Your task to perform on an android device: toggle priority inbox in the gmail app Image 0: 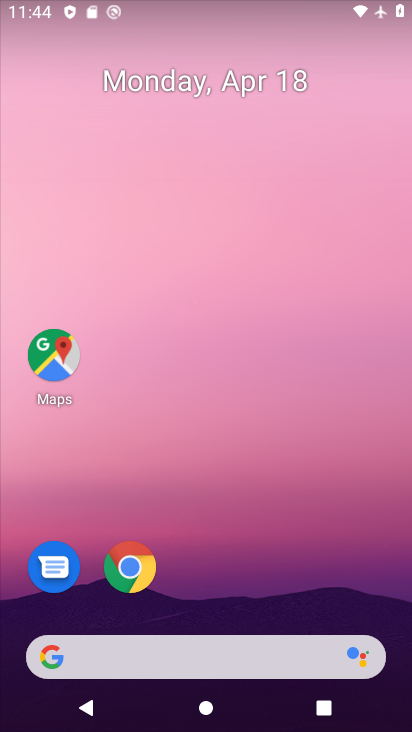
Step 0: click (345, 119)
Your task to perform on an android device: toggle priority inbox in the gmail app Image 1: 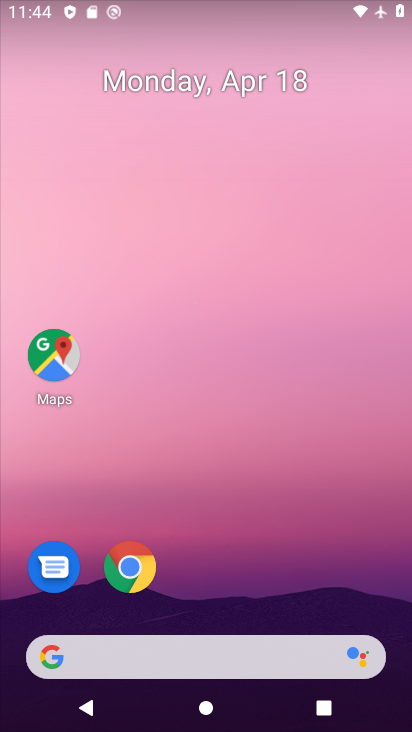
Step 1: drag from (392, 639) to (344, 194)
Your task to perform on an android device: toggle priority inbox in the gmail app Image 2: 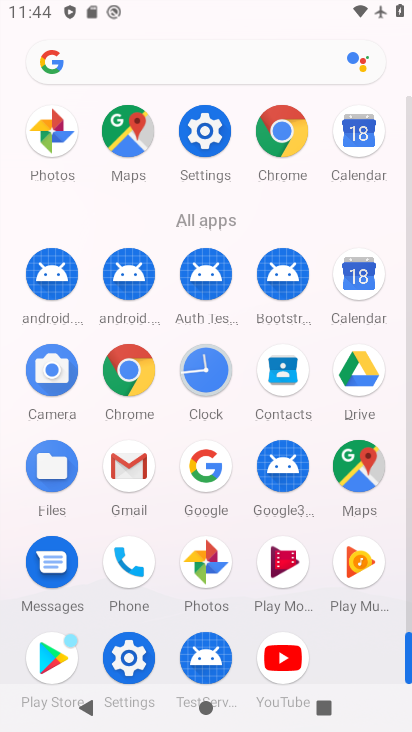
Step 2: click (122, 464)
Your task to perform on an android device: toggle priority inbox in the gmail app Image 3: 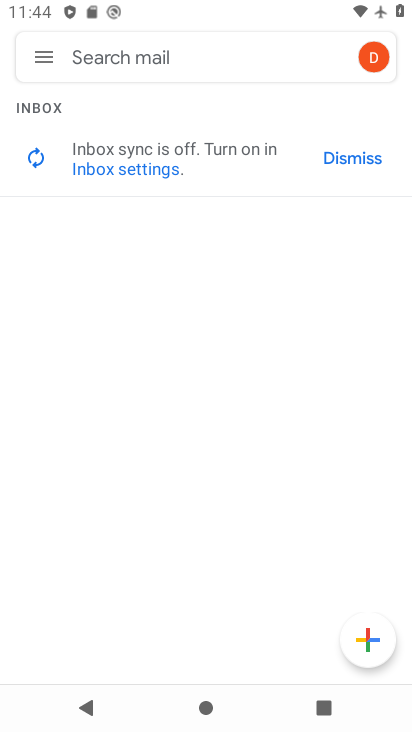
Step 3: click (43, 56)
Your task to perform on an android device: toggle priority inbox in the gmail app Image 4: 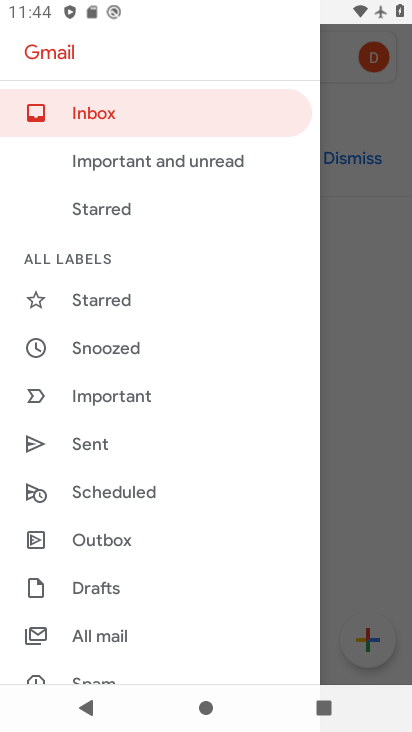
Step 4: drag from (163, 612) to (176, 383)
Your task to perform on an android device: toggle priority inbox in the gmail app Image 5: 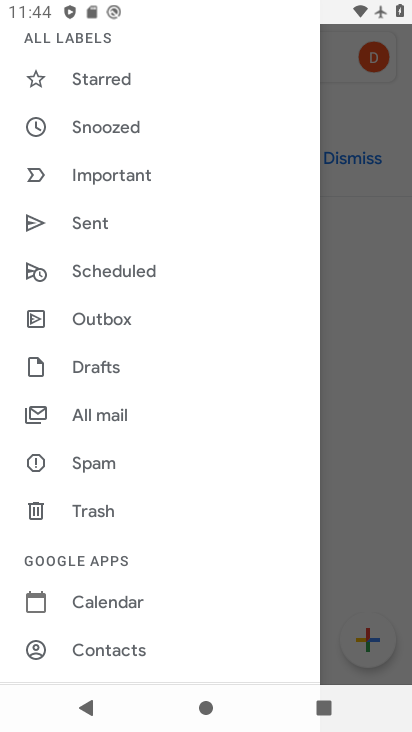
Step 5: drag from (162, 623) to (165, 303)
Your task to perform on an android device: toggle priority inbox in the gmail app Image 6: 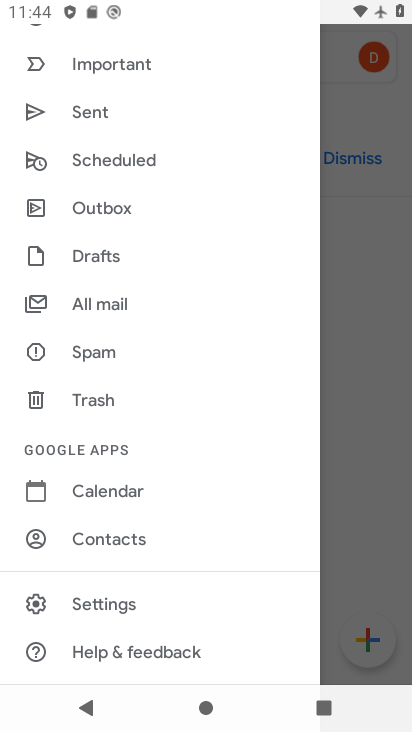
Step 6: click (106, 602)
Your task to perform on an android device: toggle priority inbox in the gmail app Image 7: 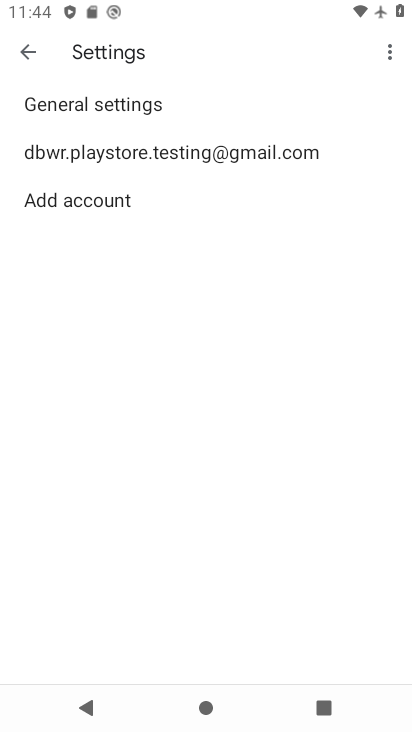
Step 7: click (80, 148)
Your task to perform on an android device: toggle priority inbox in the gmail app Image 8: 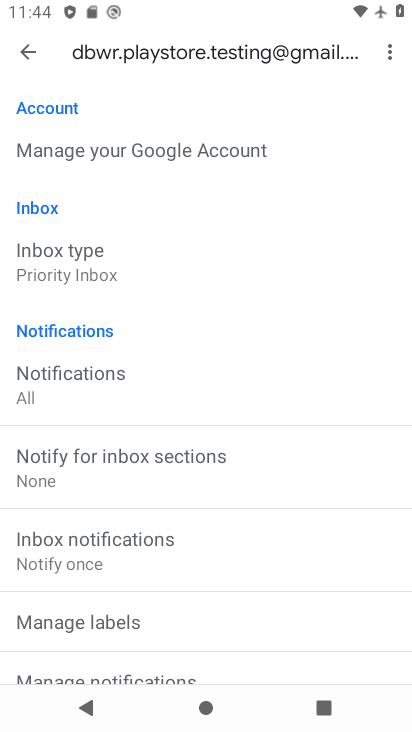
Step 8: click (79, 269)
Your task to perform on an android device: toggle priority inbox in the gmail app Image 9: 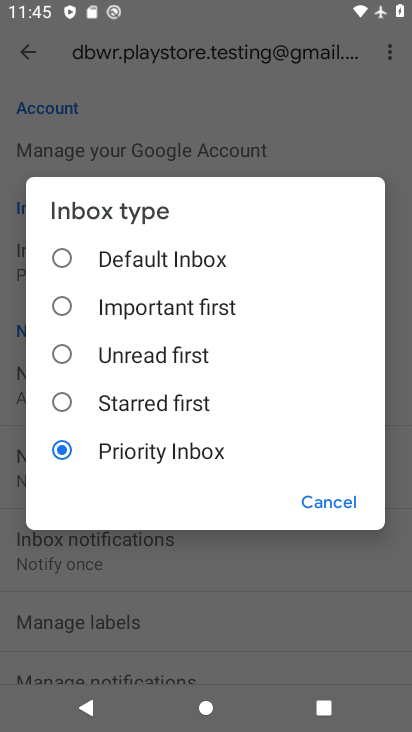
Step 9: click (66, 409)
Your task to perform on an android device: toggle priority inbox in the gmail app Image 10: 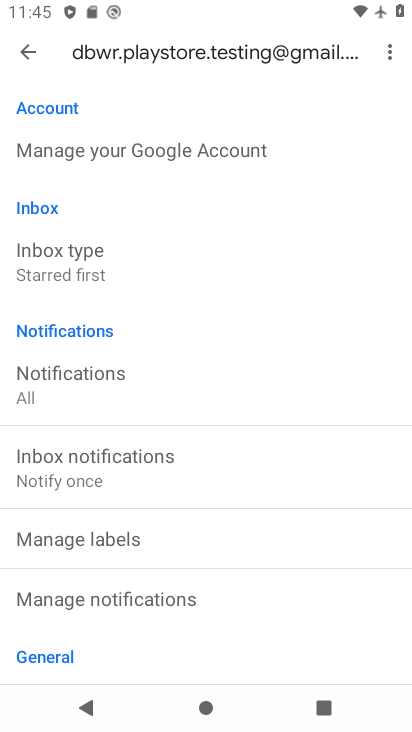
Step 10: task complete